Your task to perform on an android device: Add "macbook pro" to the cart on costco, then select checkout. Image 0: 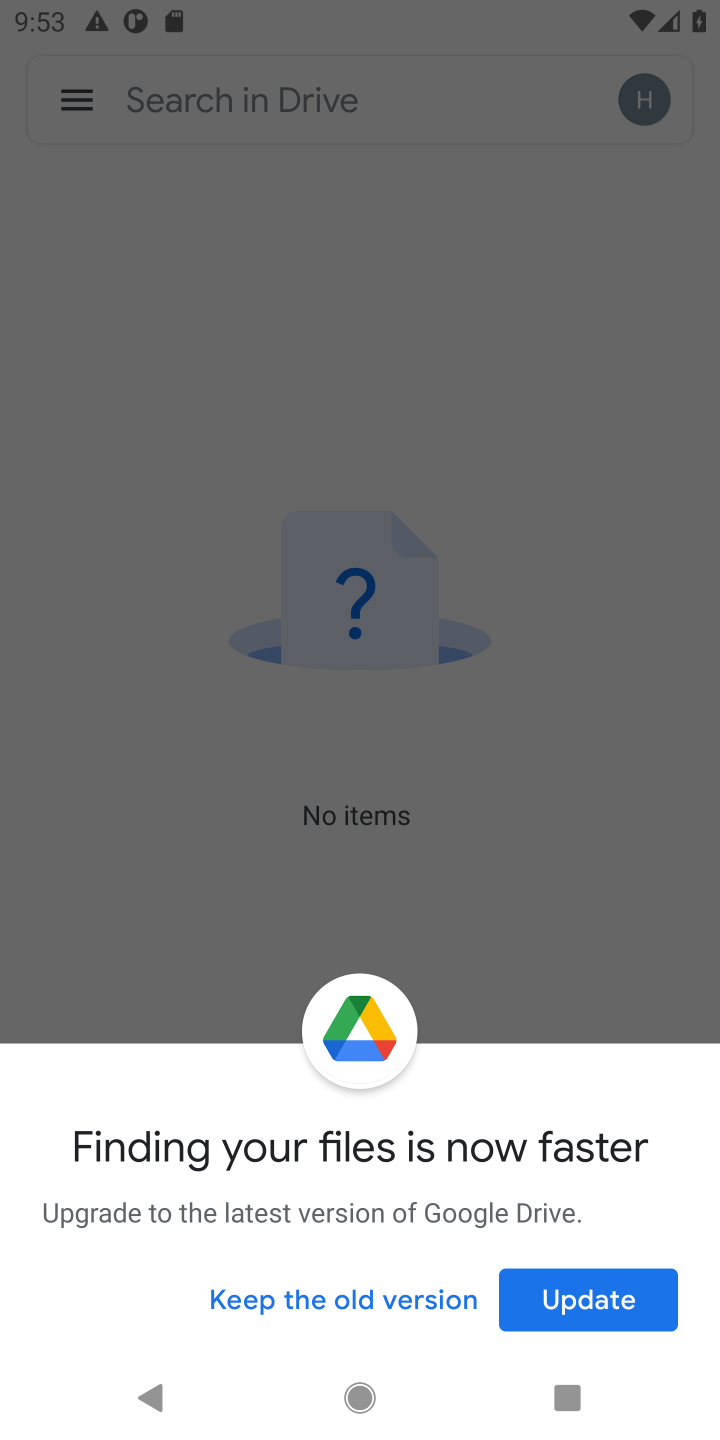
Step 0: press home button
Your task to perform on an android device: Add "macbook pro" to the cart on costco, then select checkout. Image 1: 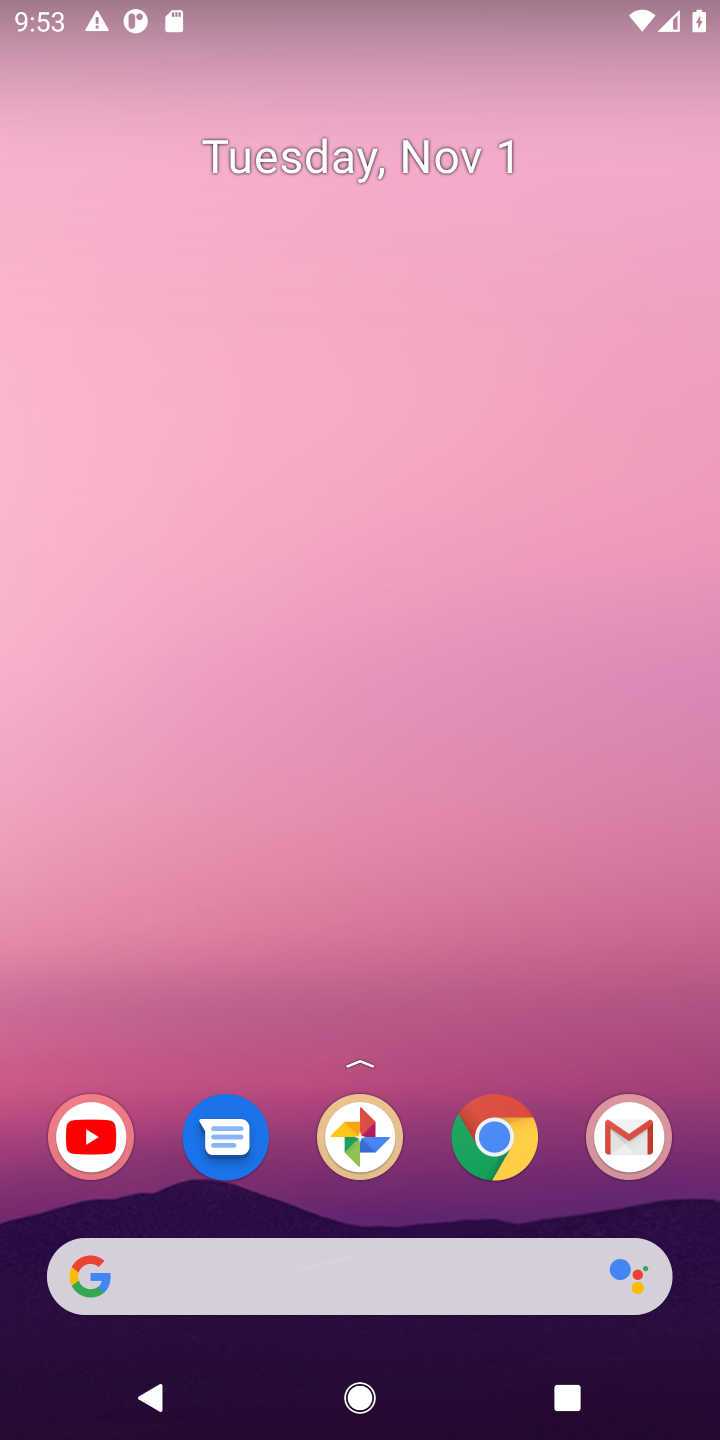
Step 1: click (354, 1259)
Your task to perform on an android device: Add "macbook pro" to the cart on costco, then select checkout. Image 2: 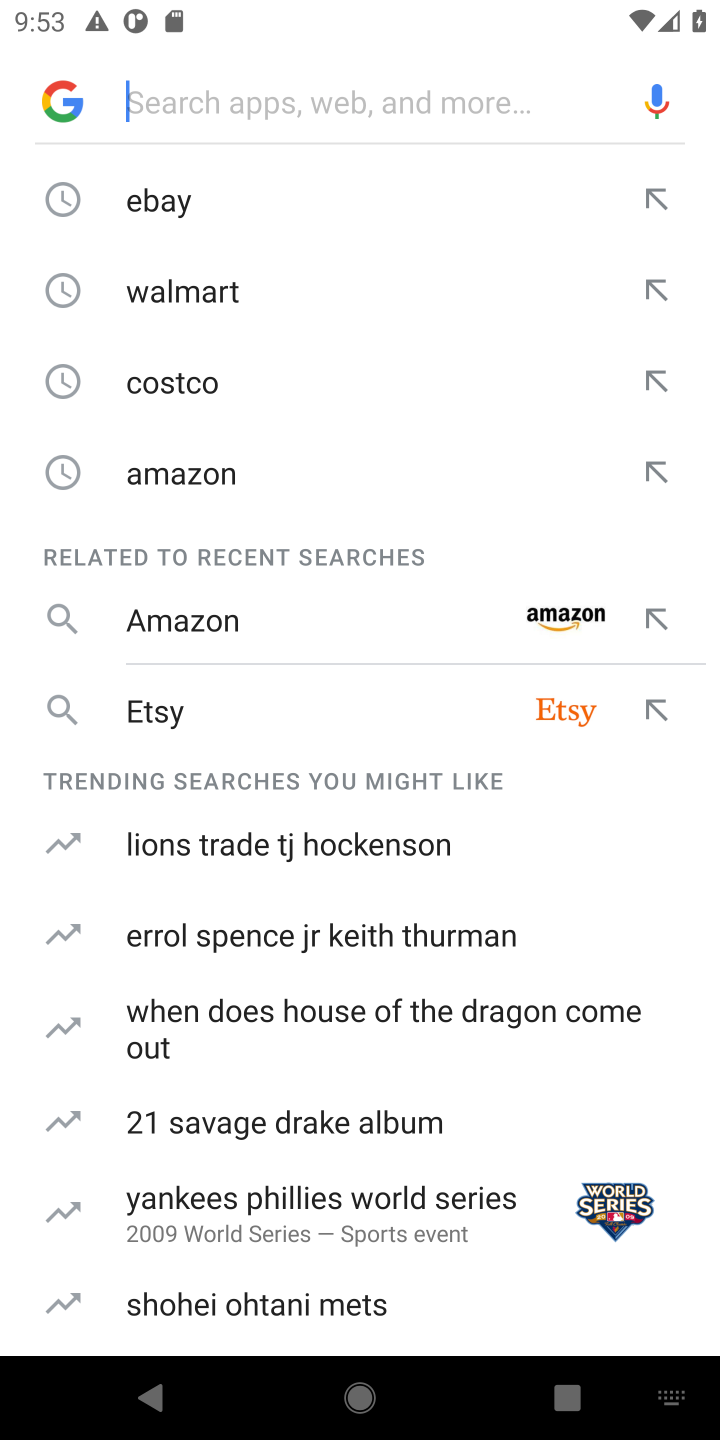
Step 2: click (318, 112)
Your task to perform on an android device: Add "macbook pro" to the cart on costco, then select checkout. Image 3: 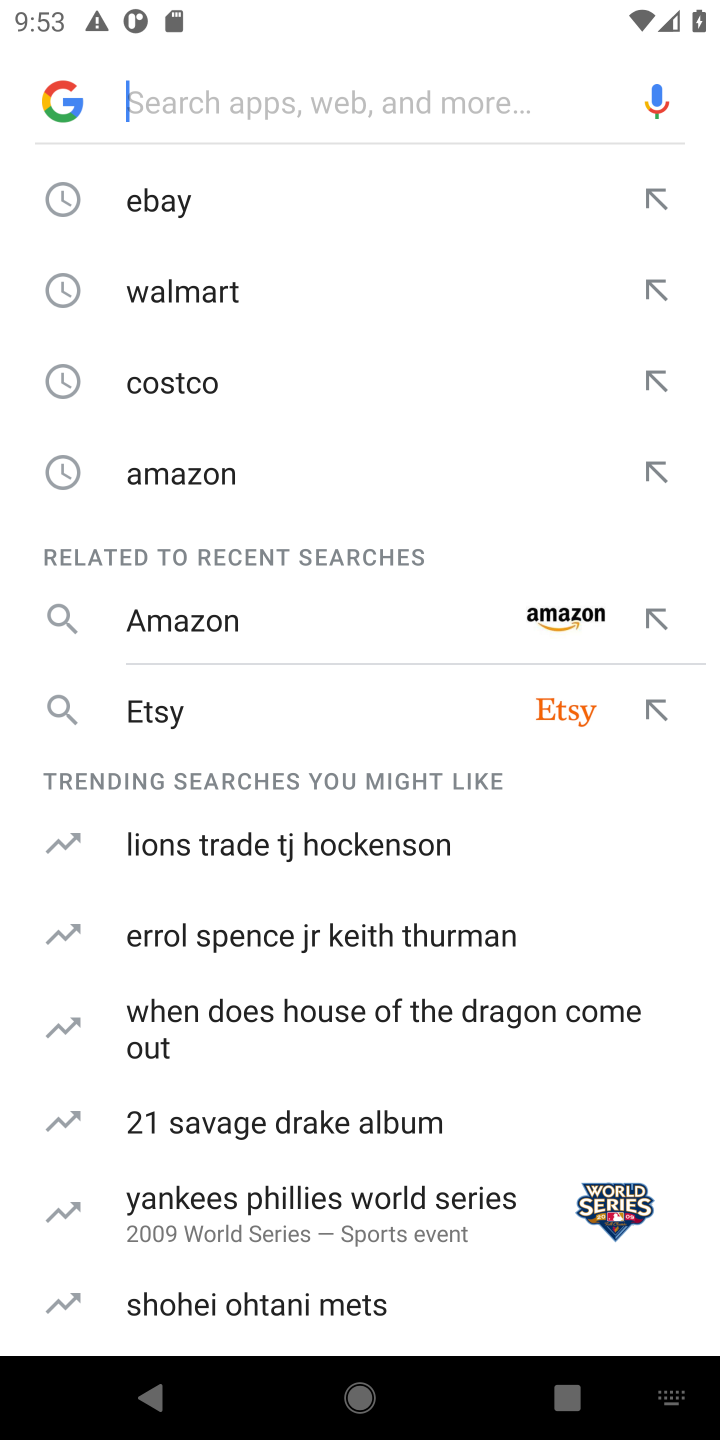
Step 3: type "costco"
Your task to perform on an android device: Add "macbook pro" to the cart on costco, then select checkout. Image 4: 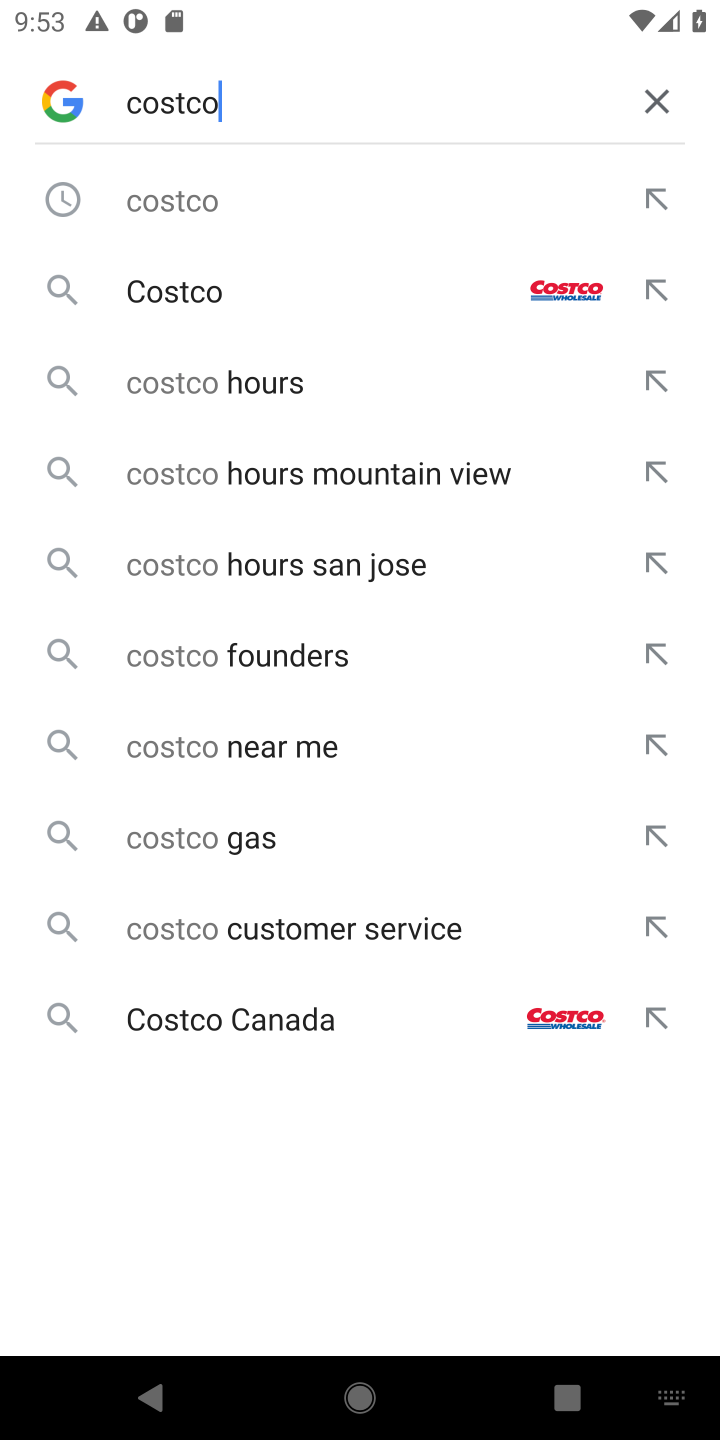
Step 4: click (219, 296)
Your task to perform on an android device: Add "macbook pro" to the cart on costco, then select checkout. Image 5: 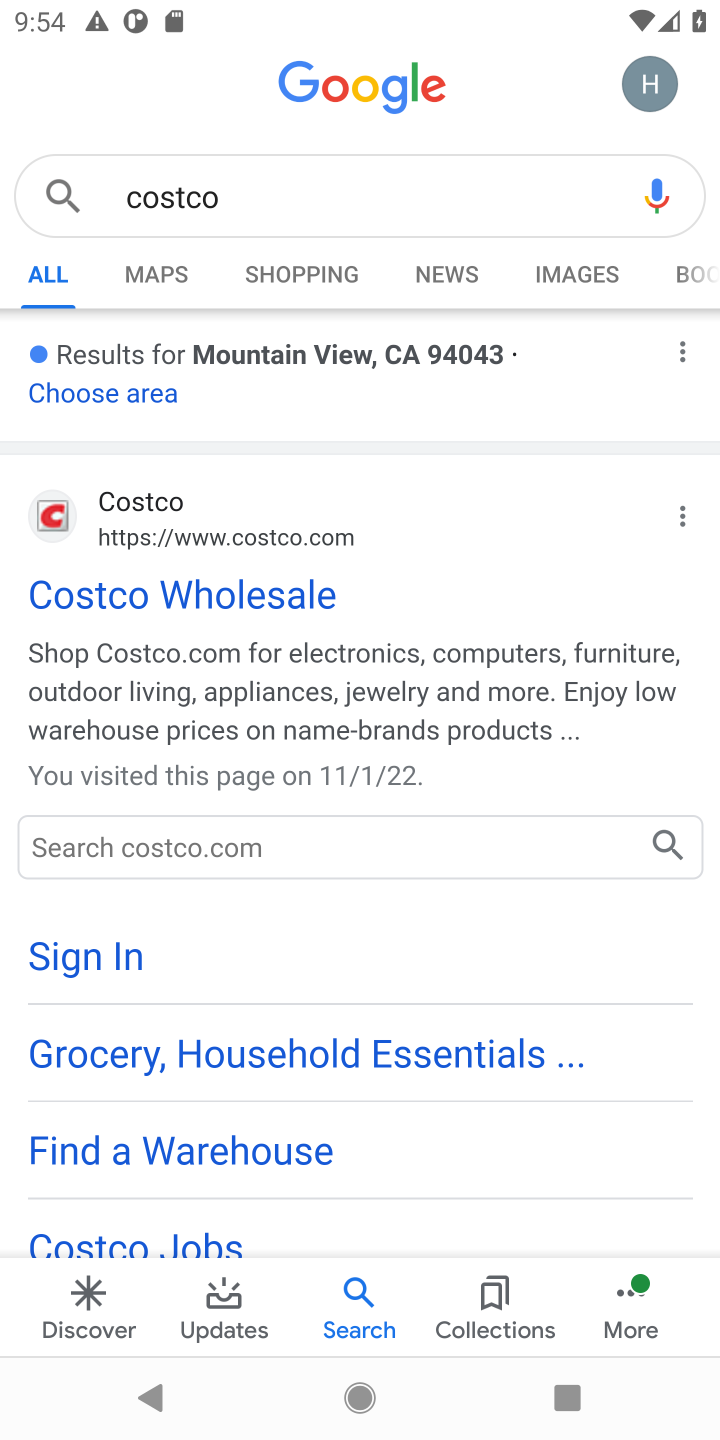
Step 5: click (109, 507)
Your task to perform on an android device: Add "macbook pro" to the cart on costco, then select checkout. Image 6: 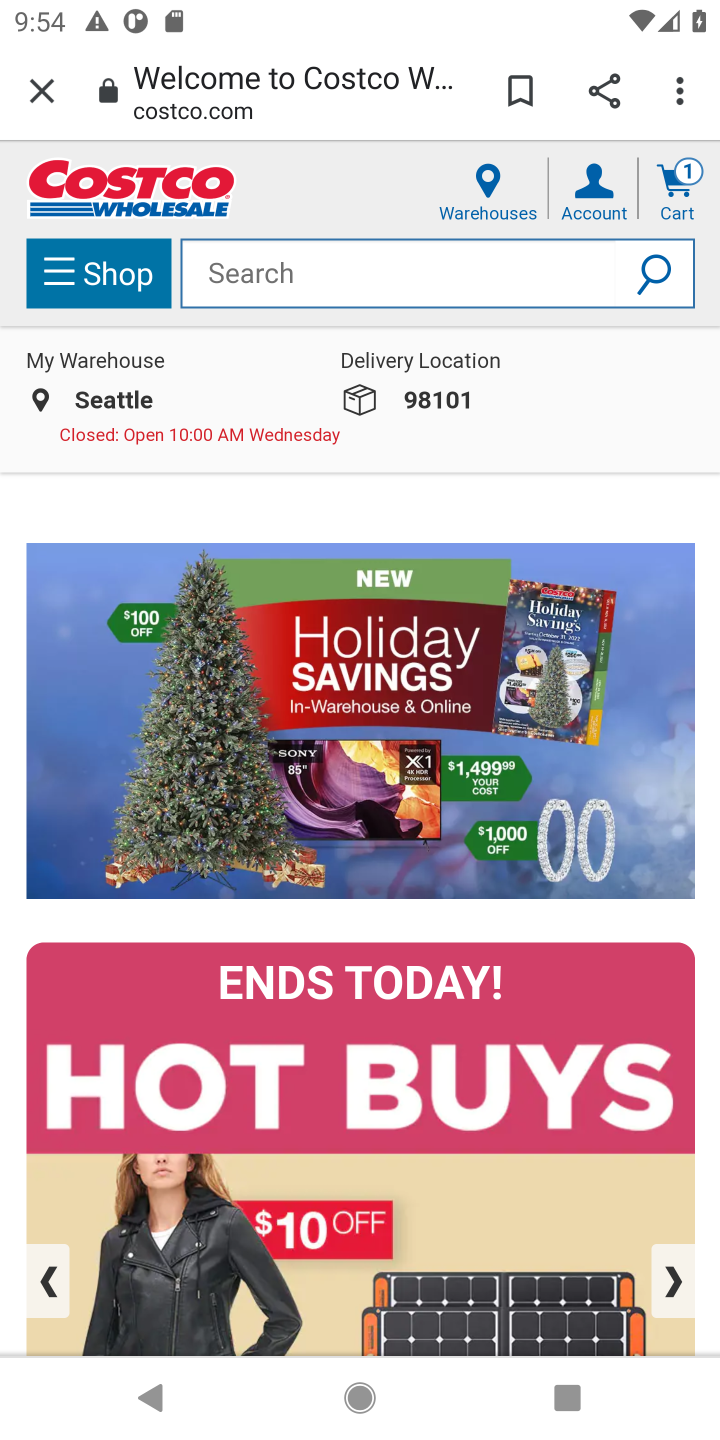
Step 6: click (358, 254)
Your task to perform on an android device: Add "macbook pro" to the cart on costco, then select checkout. Image 7: 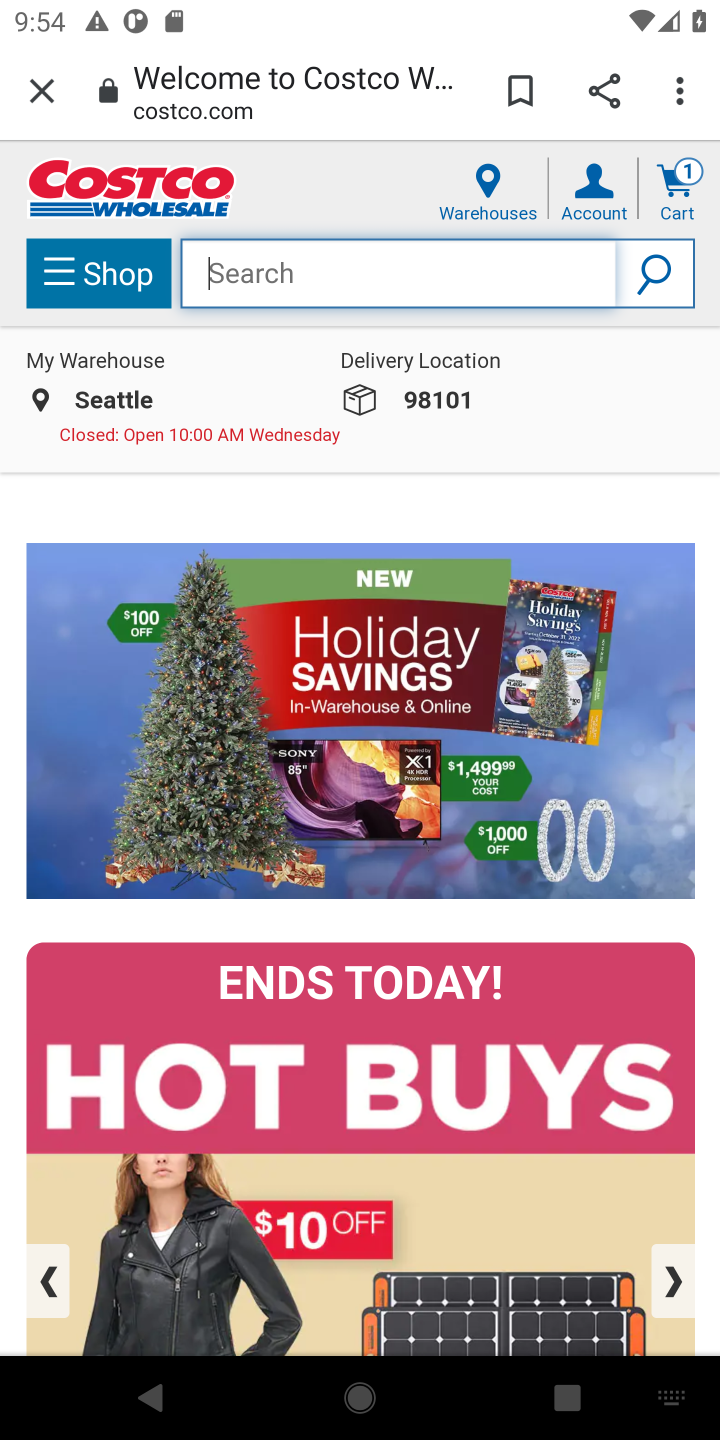
Step 7: type "macbook pro"
Your task to perform on an android device: Add "macbook pro" to the cart on costco, then select checkout. Image 8: 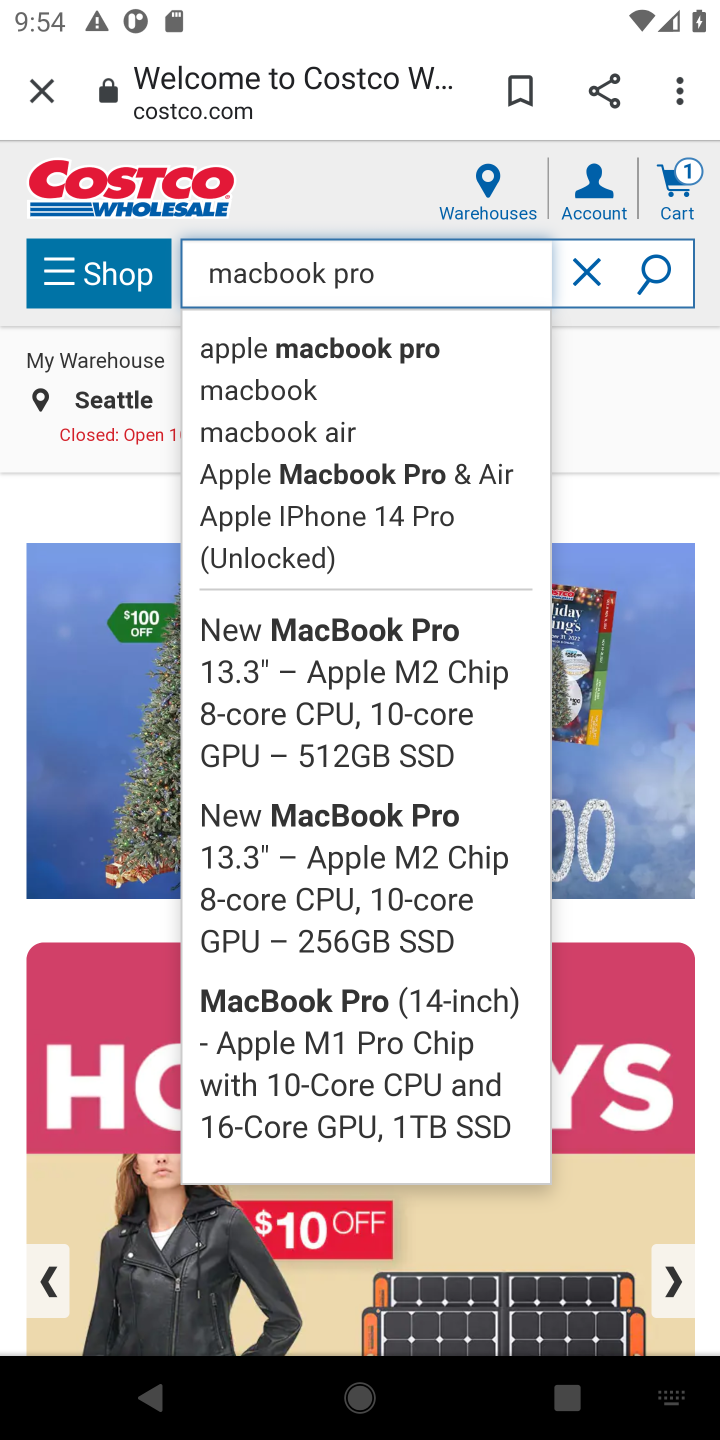
Step 8: click (368, 346)
Your task to perform on an android device: Add "macbook pro" to the cart on costco, then select checkout. Image 9: 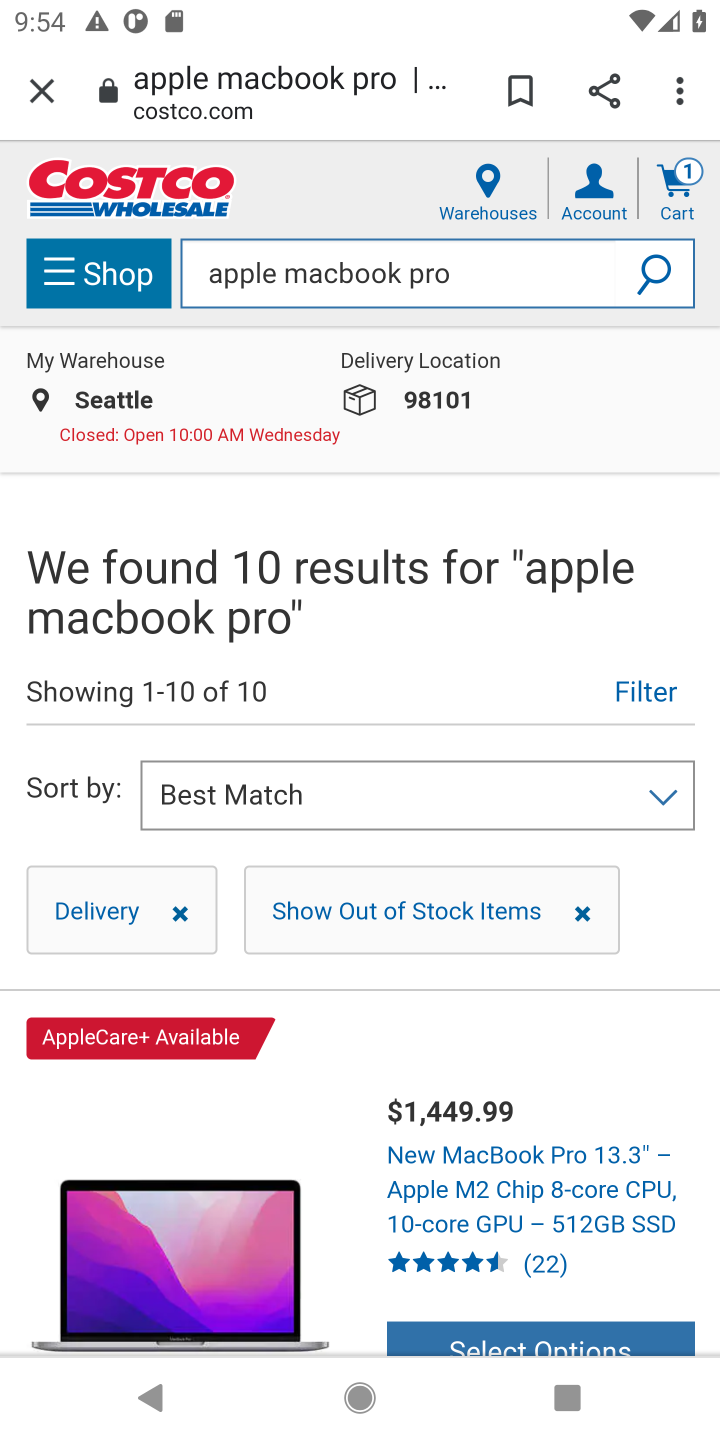
Step 9: click (491, 1161)
Your task to perform on an android device: Add "macbook pro" to the cart on costco, then select checkout. Image 10: 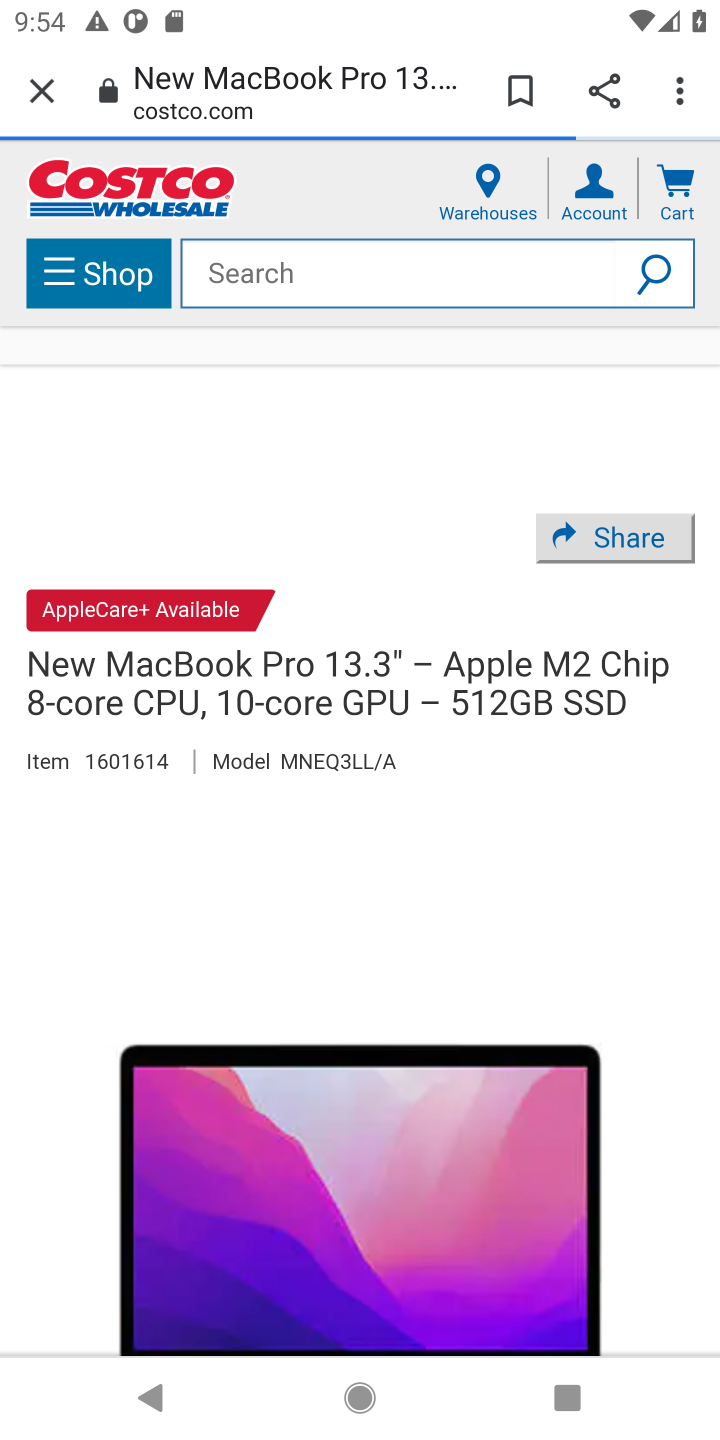
Step 10: drag from (480, 1067) to (488, 652)
Your task to perform on an android device: Add "macbook pro" to the cart on costco, then select checkout. Image 11: 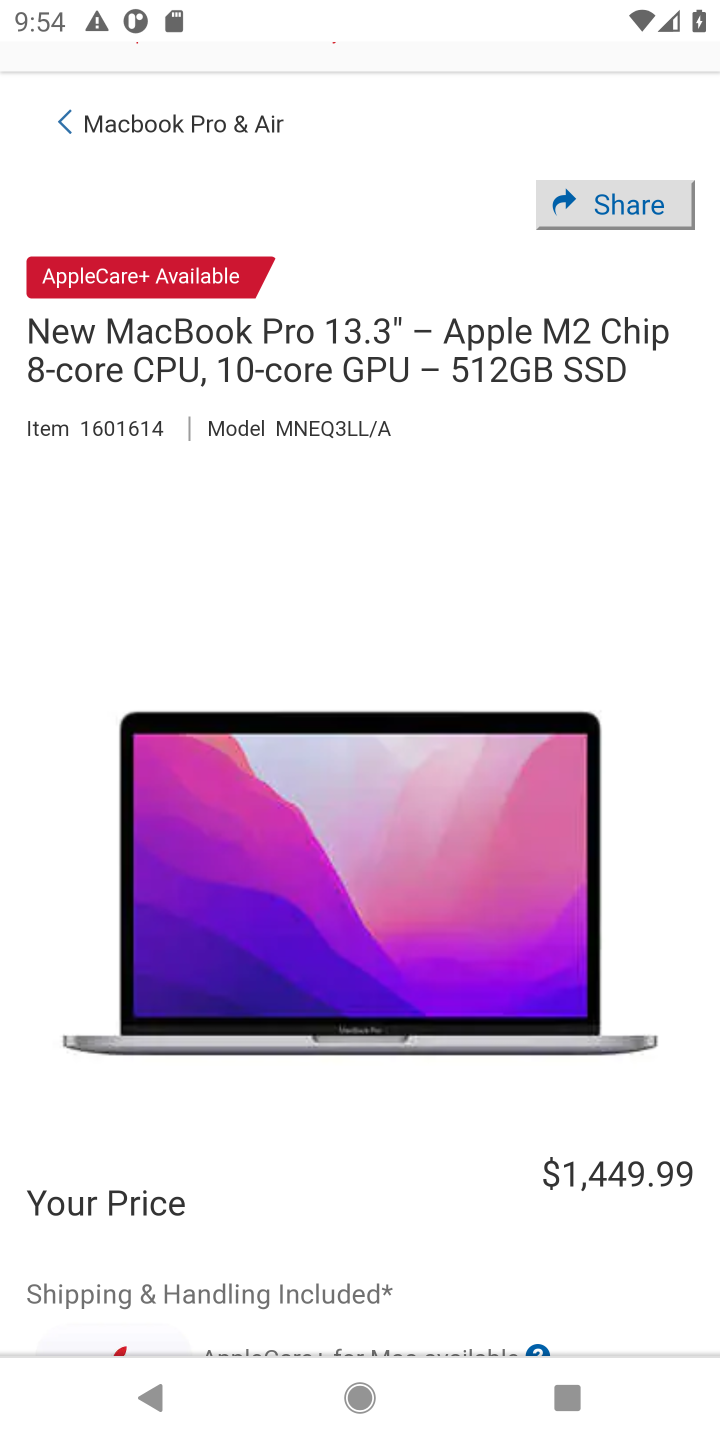
Step 11: drag from (459, 952) to (468, 650)
Your task to perform on an android device: Add "macbook pro" to the cart on costco, then select checkout. Image 12: 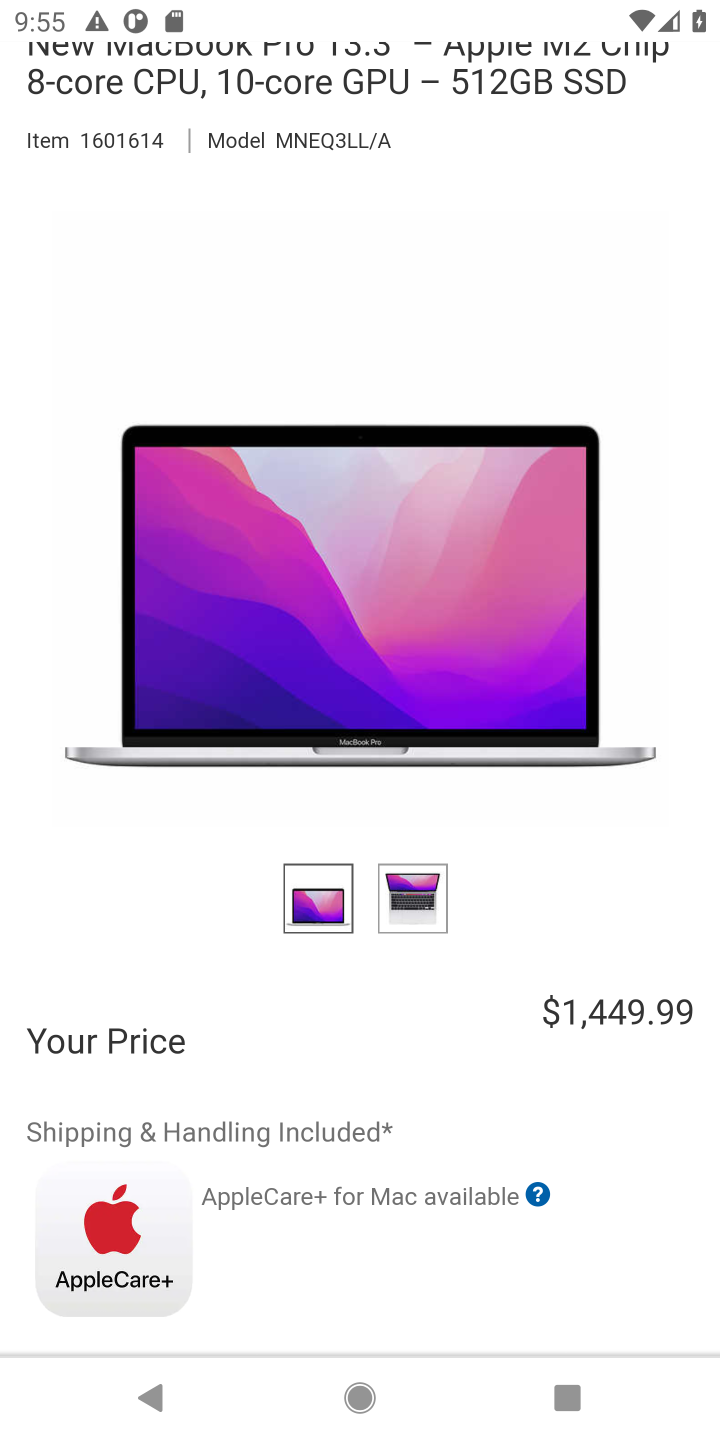
Step 12: drag from (280, 1128) to (317, 855)
Your task to perform on an android device: Add "macbook pro" to the cart on costco, then select checkout. Image 13: 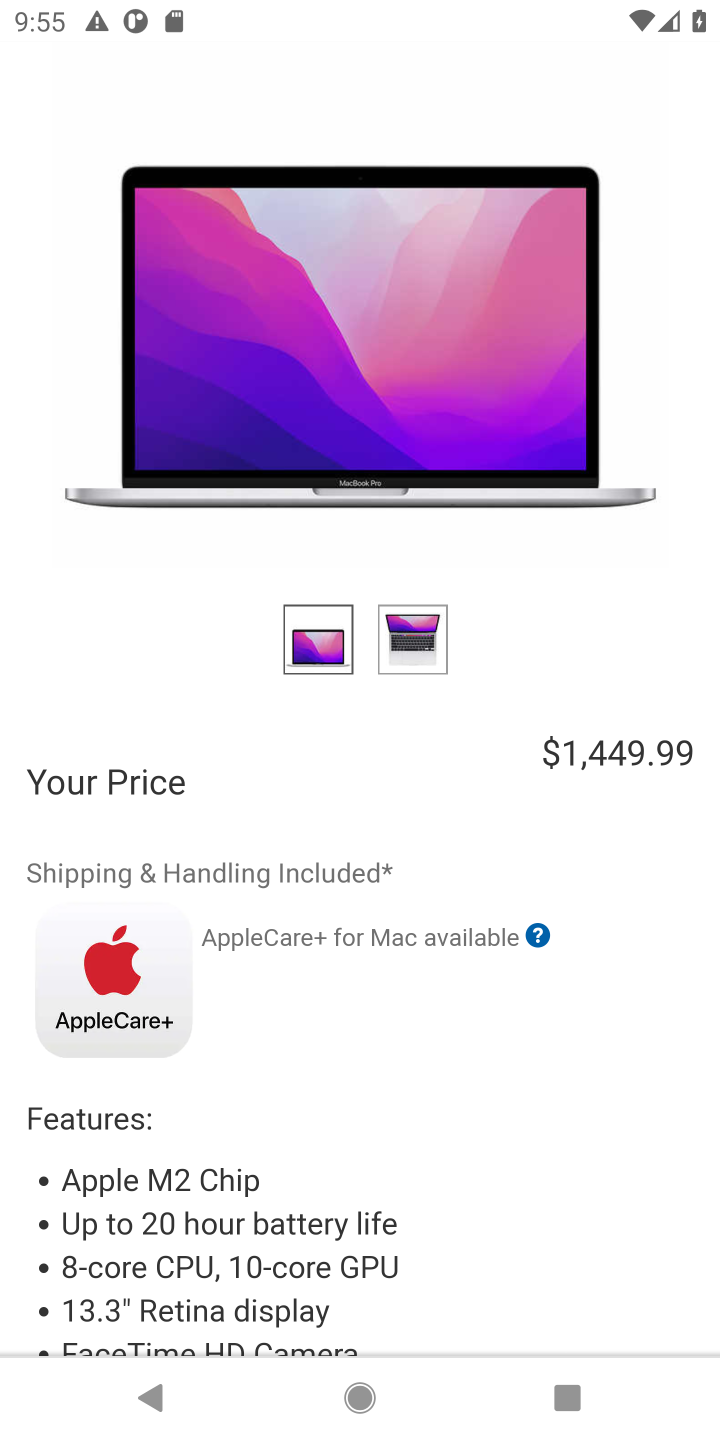
Step 13: drag from (317, 1136) to (342, 846)
Your task to perform on an android device: Add "macbook pro" to the cart on costco, then select checkout. Image 14: 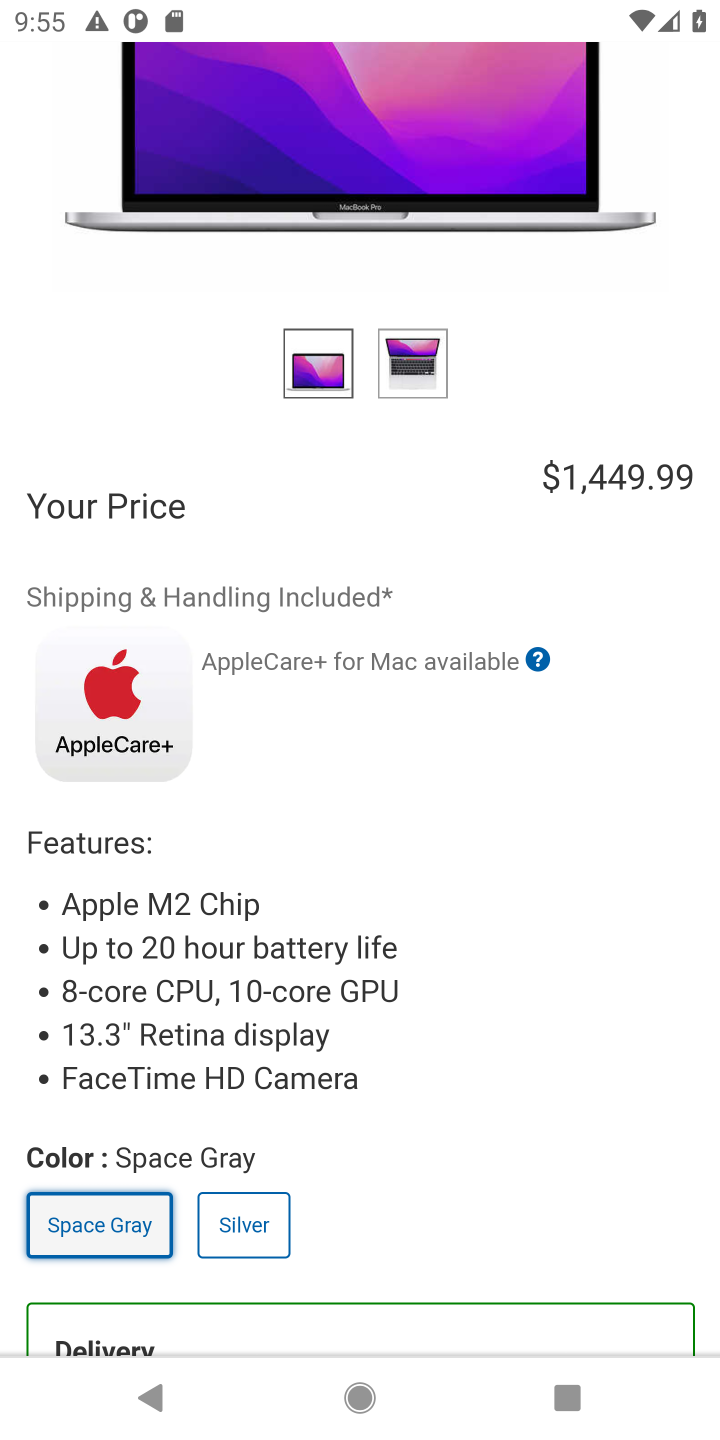
Step 14: drag from (463, 898) to (491, 386)
Your task to perform on an android device: Add "macbook pro" to the cart on costco, then select checkout. Image 15: 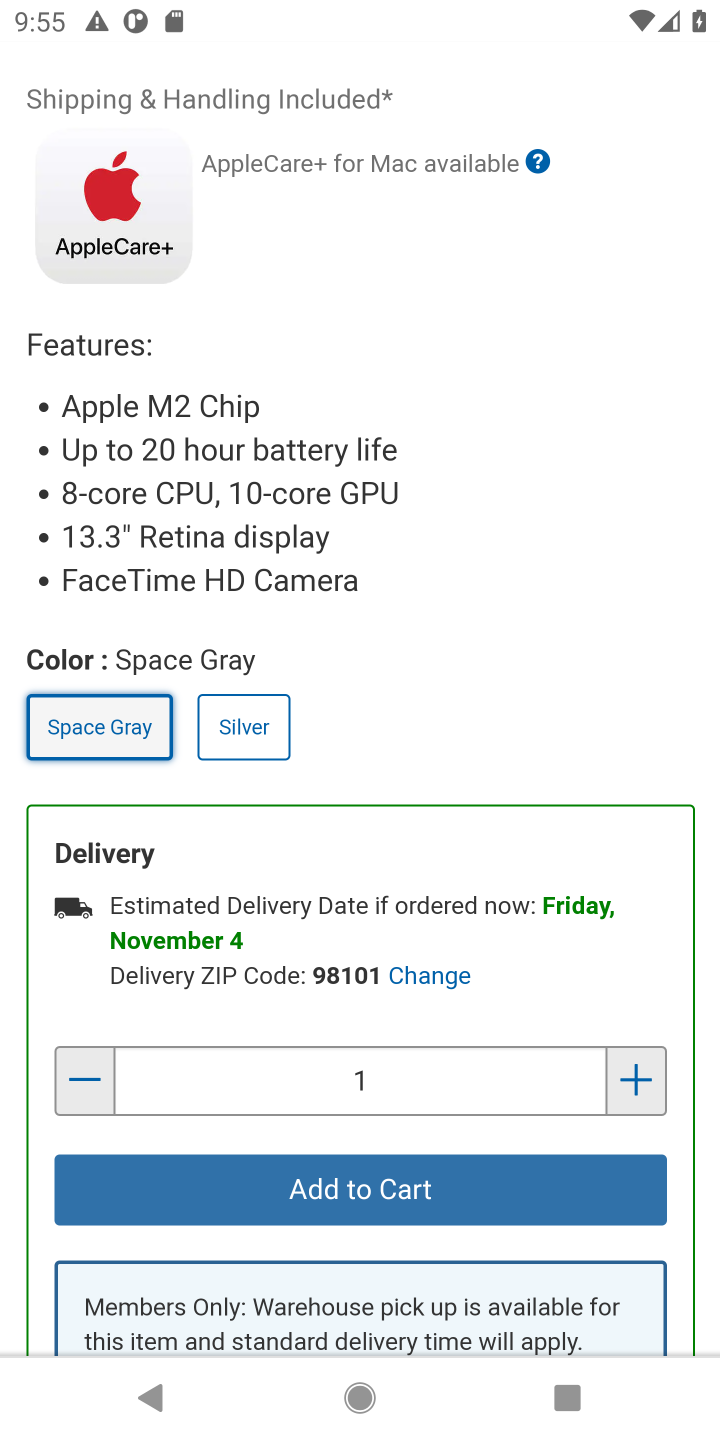
Step 15: click (377, 1184)
Your task to perform on an android device: Add "macbook pro" to the cart on costco, then select checkout. Image 16: 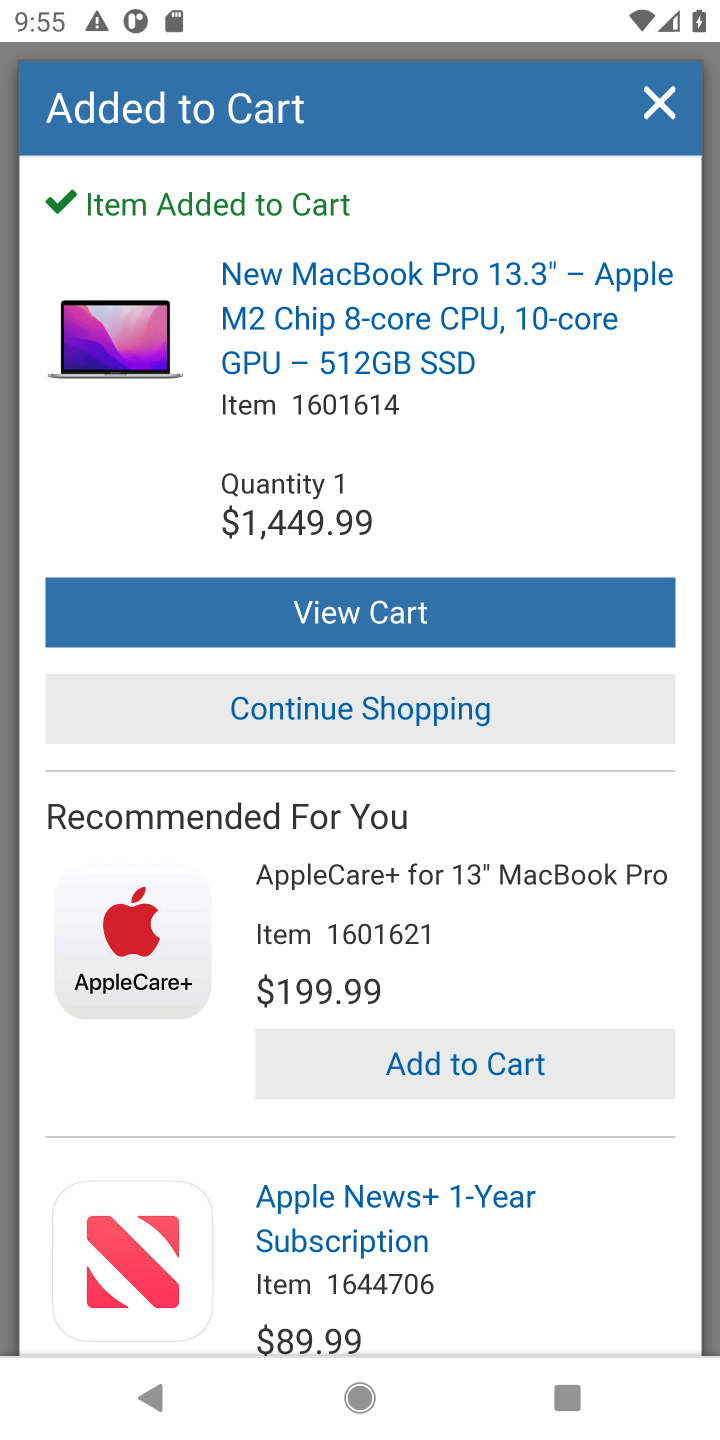
Step 16: task complete